Your task to perform on an android device: find which apps use the phone's location Image 0: 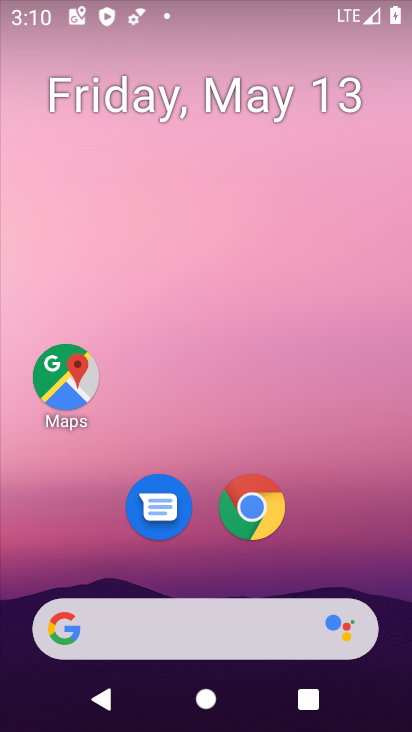
Step 0: drag from (349, 516) to (410, 156)
Your task to perform on an android device: find which apps use the phone's location Image 1: 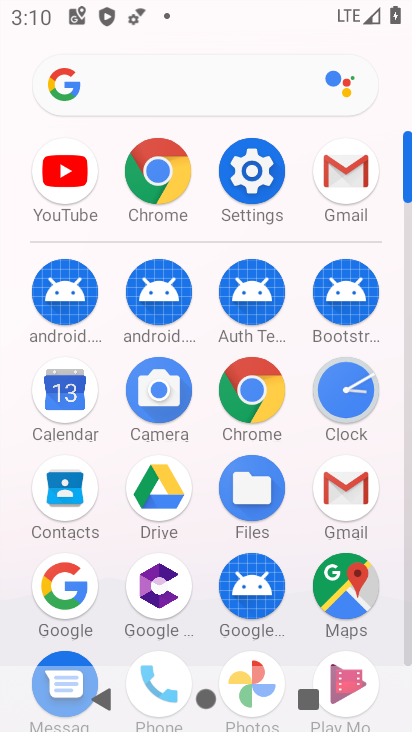
Step 1: click (238, 187)
Your task to perform on an android device: find which apps use the phone's location Image 2: 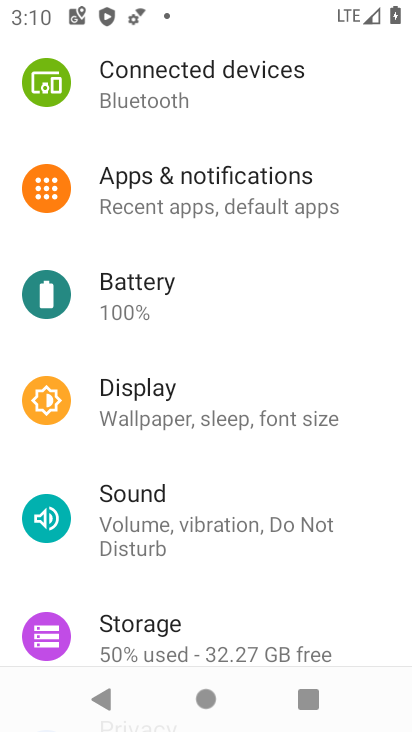
Step 2: drag from (259, 251) to (225, 577)
Your task to perform on an android device: find which apps use the phone's location Image 3: 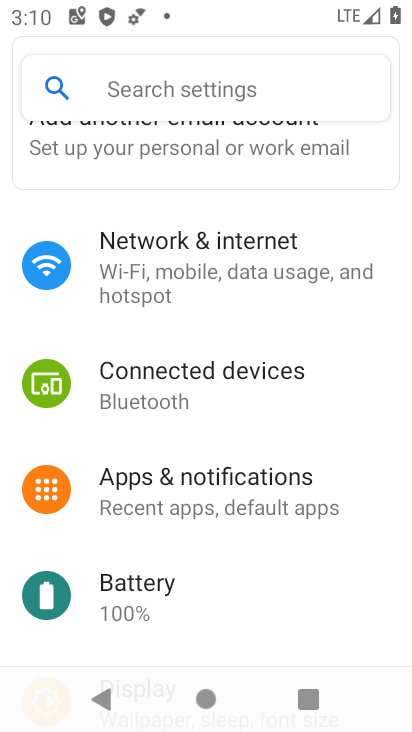
Step 3: drag from (305, 309) to (294, 541)
Your task to perform on an android device: find which apps use the phone's location Image 4: 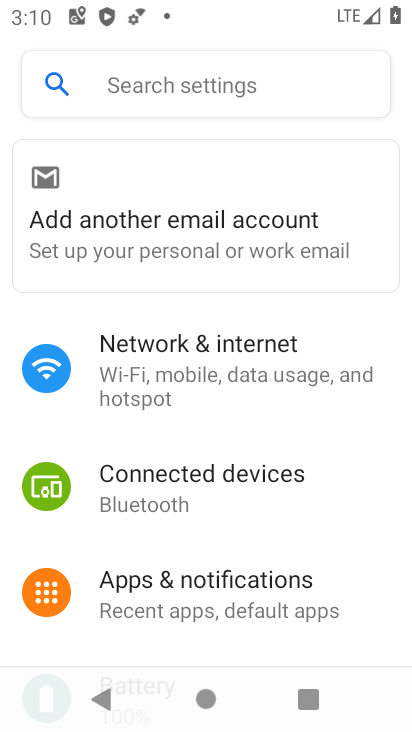
Step 4: drag from (317, 482) to (410, 137)
Your task to perform on an android device: find which apps use the phone's location Image 5: 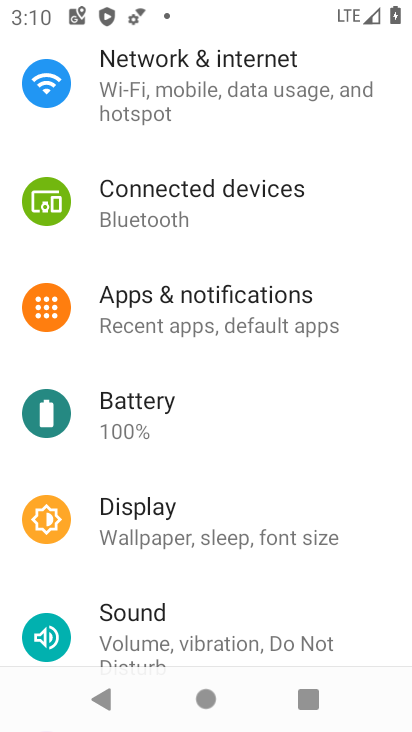
Step 5: drag from (216, 497) to (254, 133)
Your task to perform on an android device: find which apps use the phone's location Image 6: 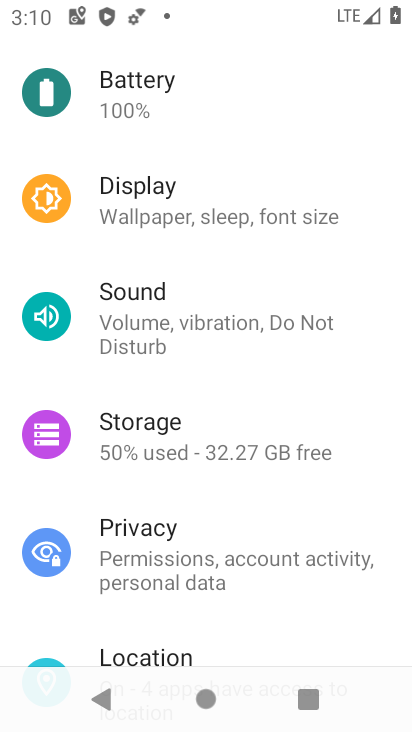
Step 6: click (222, 642)
Your task to perform on an android device: find which apps use the phone's location Image 7: 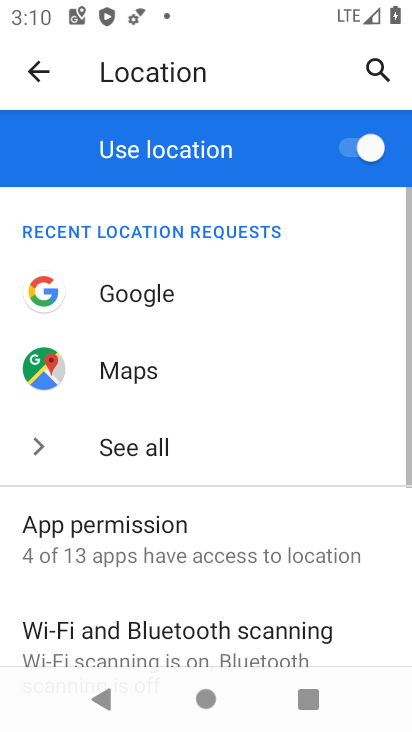
Step 7: drag from (211, 567) to (297, 234)
Your task to perform on an android device: find which apps use the phone's location Image 8: 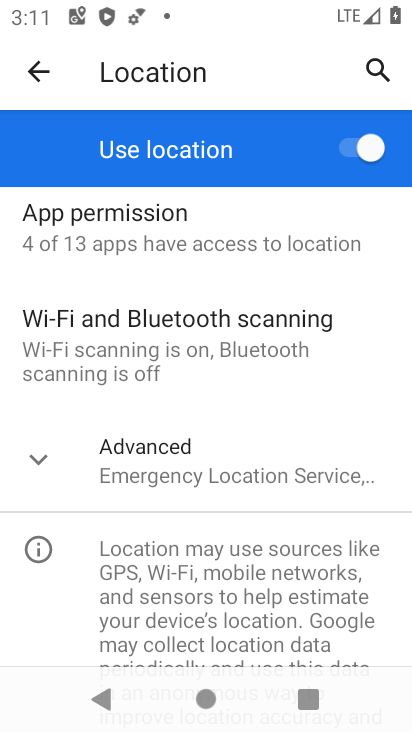
Step 8: click (230, 474)
Your task to perform on an android device: find which apps use the phone's location Image 9: 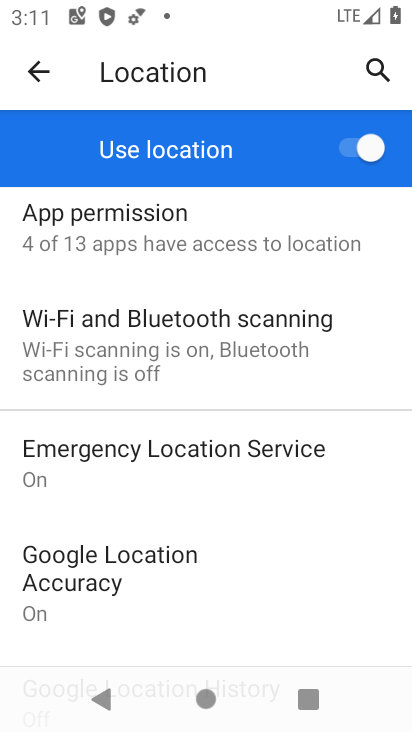
Step 9: drag from (285, 547) to (279, 239)
Your task to perform on an android device: find which apps use the phone's location Image 10: 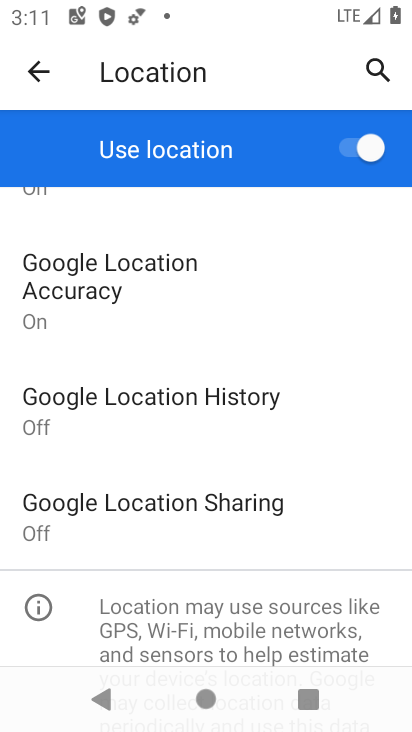
Step 10: drag from (309, 471) to (314, 190)
Your task to perform on an android device: find which apps use the phone's location Image 11: 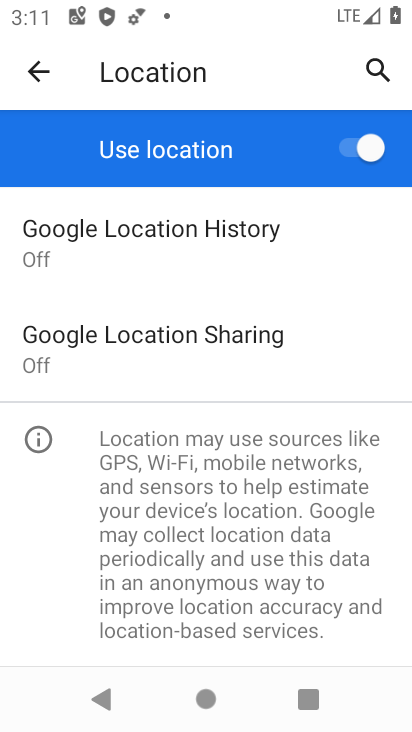
Step 11: drag from (266, 494) to (286, 234)
Your task to perform on an android device: find which apps use the phone's location Image 12: 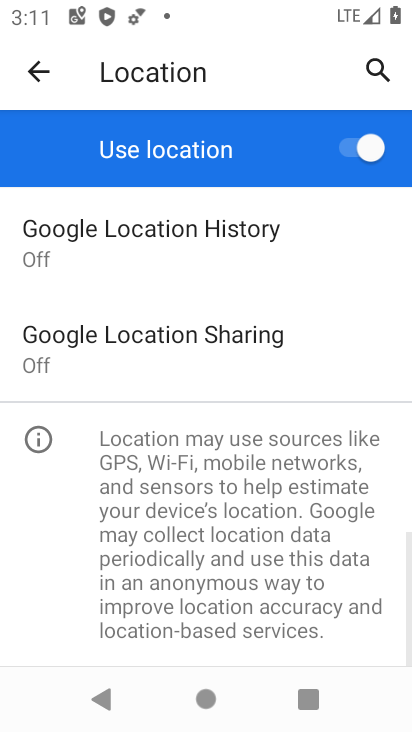
Step 12: drag from (308, 218) to (263, 592)
Your task to perform on an android device: find which apps use the phone's location Image 13: 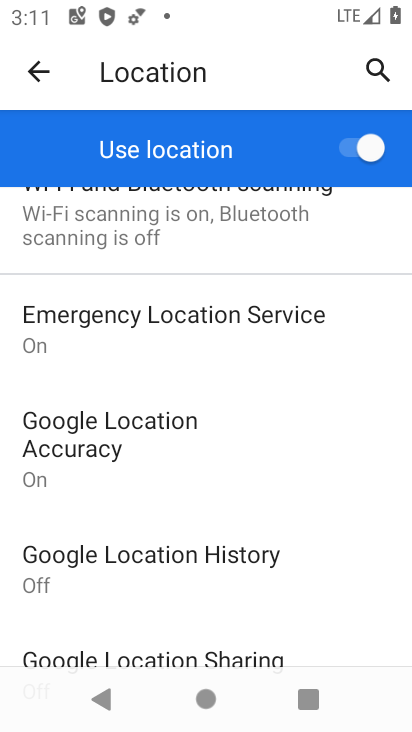
Step 13: drag from (306, 240) to (275, 551)
Your task to perform on an android device: find which apps use the phone's location Image 14: 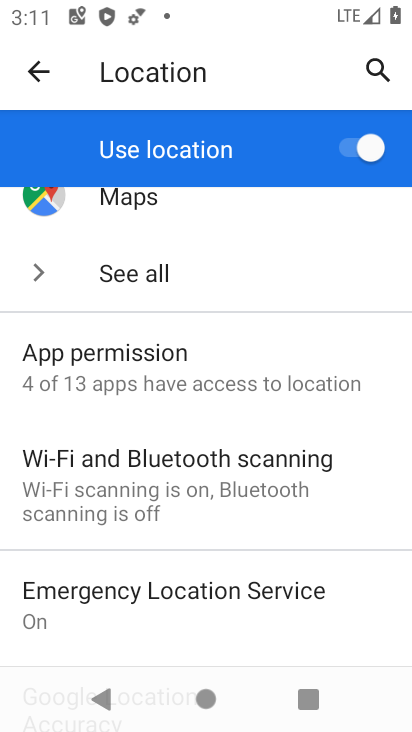
Step 14: drag from (243, 241) to (209, 595)
Your task to perform on an android device: find which apps use the phone's location Image 15: 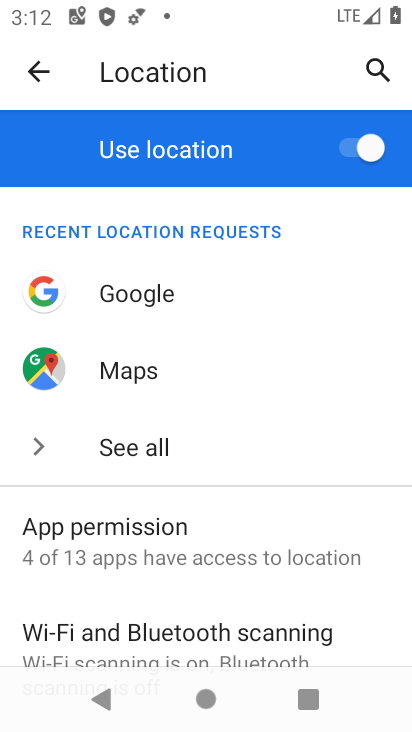
Step 15: click (202, 530)
Your task to perform on an android device: find which apps use the phone's location Image 16: 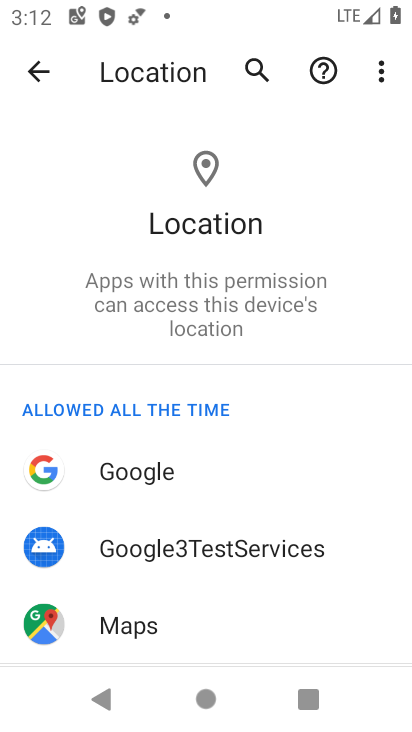
Step 16: task complete